Your task to perform on an android device: delete location history Image 0: 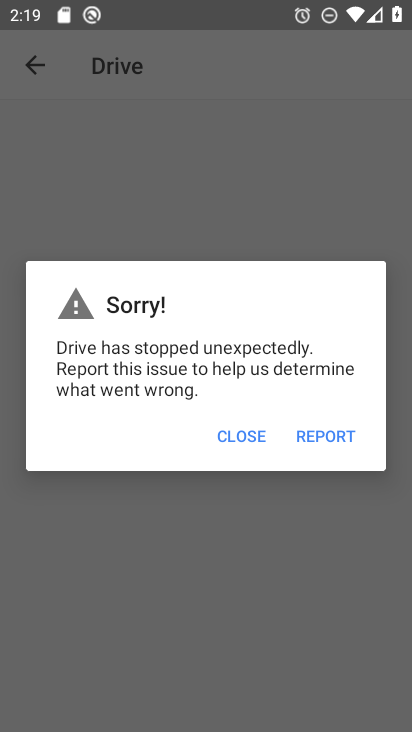
Step 0: press home button
Your task to perform on an android device: delete location history Image 1: 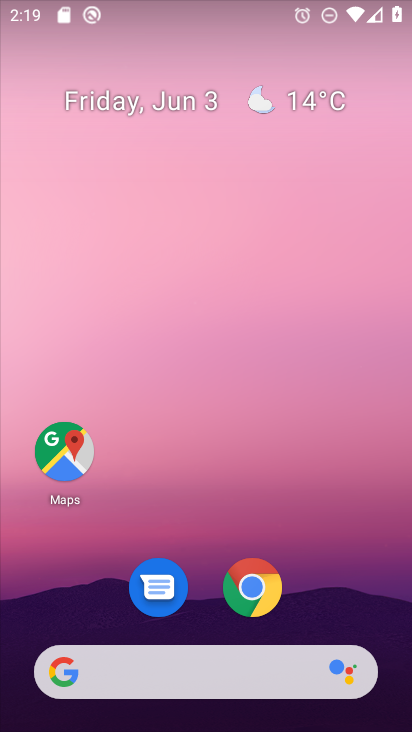
Step 1: click (59, 443)
Your task to perform on an android device: delete location history Image 2: 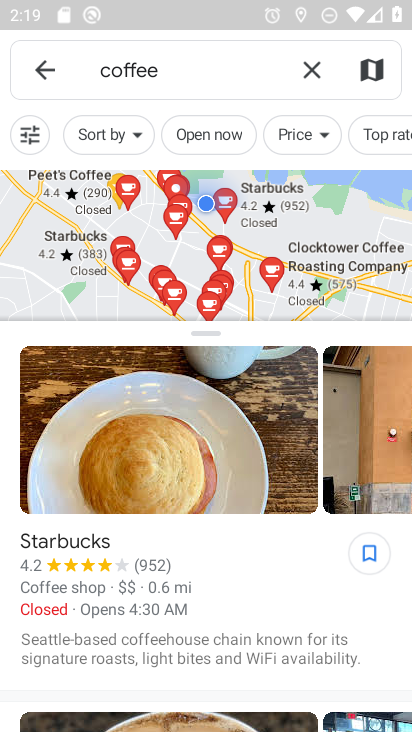
Step 2: click (57, 68)
Your task to perform on an android device: delete location history Image 3: 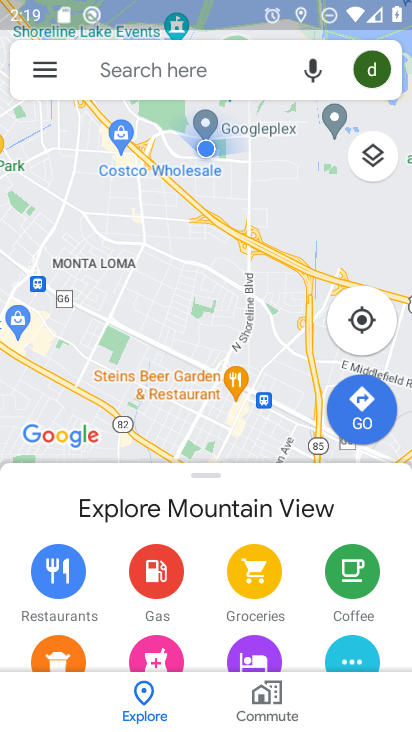
Step 3: click (54, 68)
Your task to perform on an android device: delete location history Image 4: 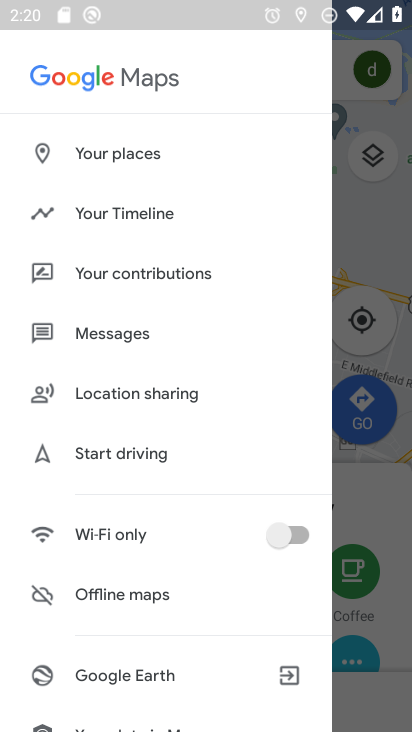
Step 4: click (200, 216)
Your task to perform on an android device: delete location history Image 5: 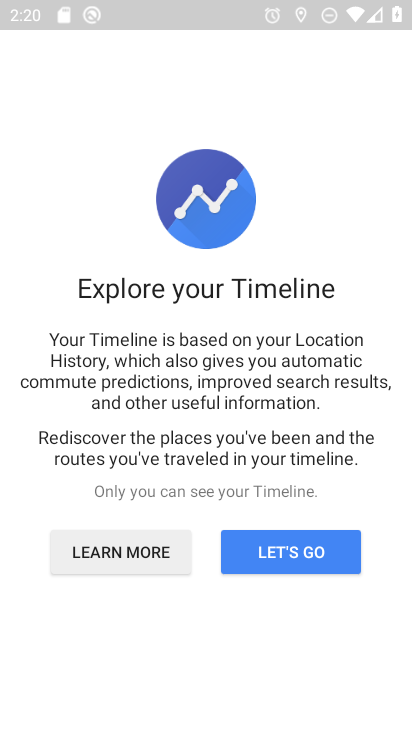
Step 5: click (307, 562)
Your task to perform on an android device: delete location history Image 6: 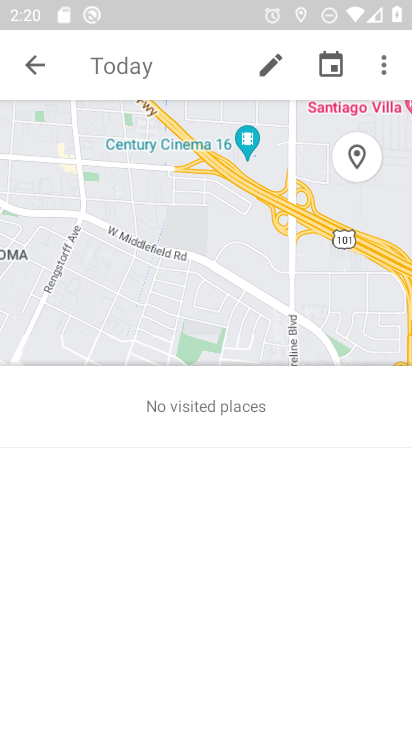
Step 6: click (376, 56)
Your task to perform on an android device: delete location history Image 7: 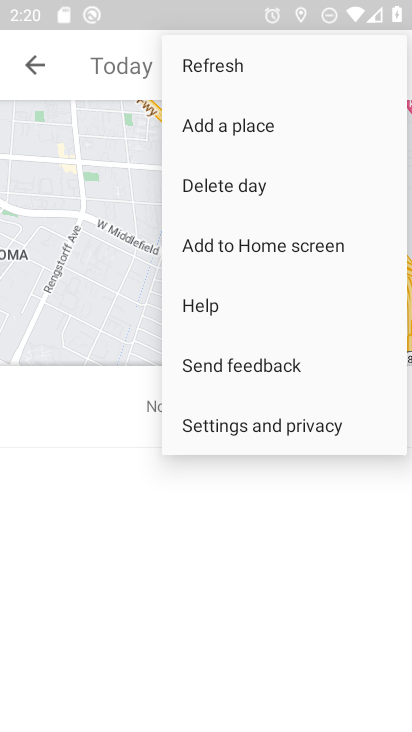
Step 7: click (247, 438)
Your task to perform on an android device: delete location history Image 8: 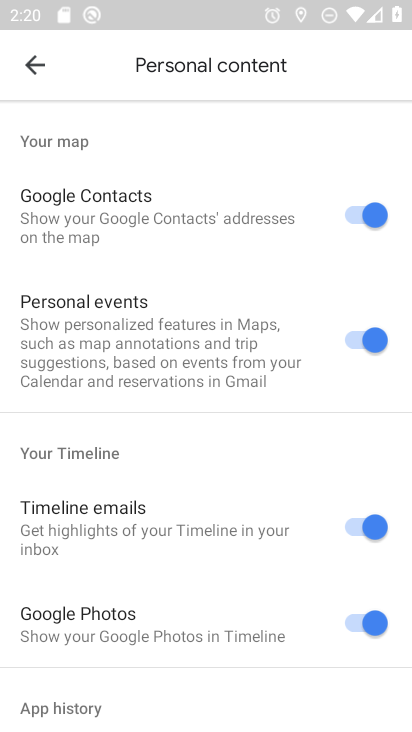
Step 8: drag from (230, 675) to (252, 183)
Your task to perform on an android device: delete location history Image 9: 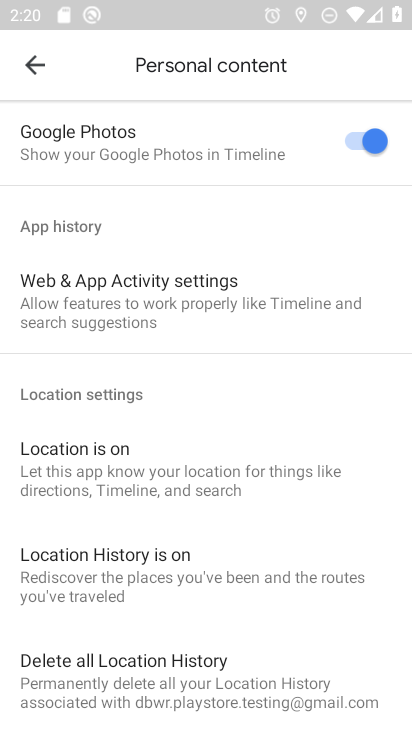
Step 9: click (112, 659)
Your task to perform on an android device: delete location history Image 10: 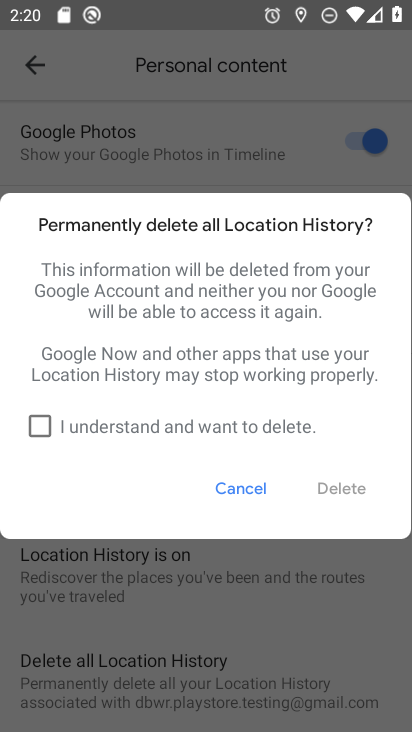
Step 10: click (51, 429)
Your task to perform on an android device: delete location history Image 11: 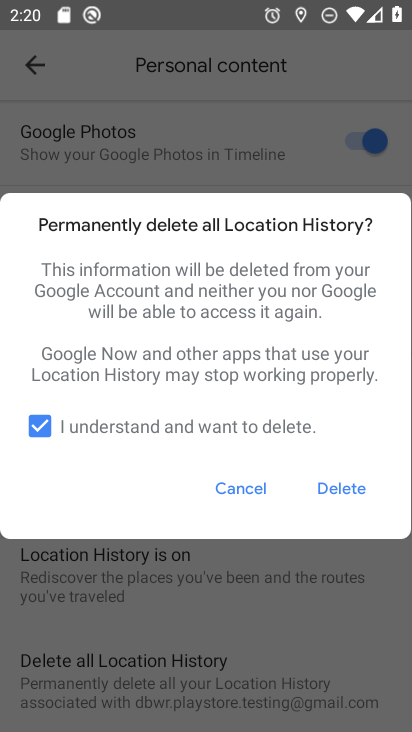
Step 11: click (352, 505)
Your task to perform on an android device: delete location history Image 12: 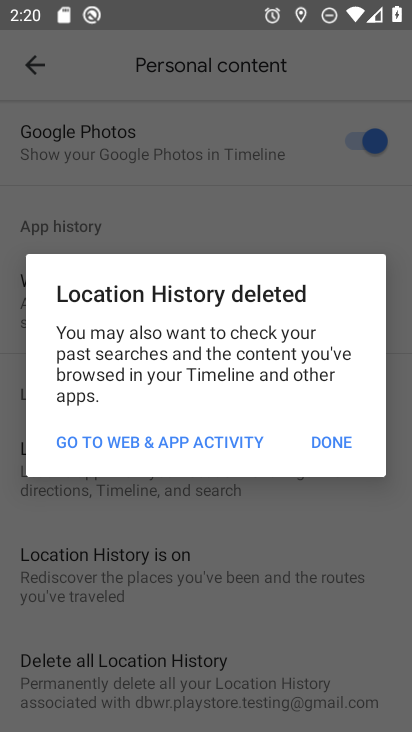
Step 12: task complete